Your task to perform on an android device: set an alarm Image 0: 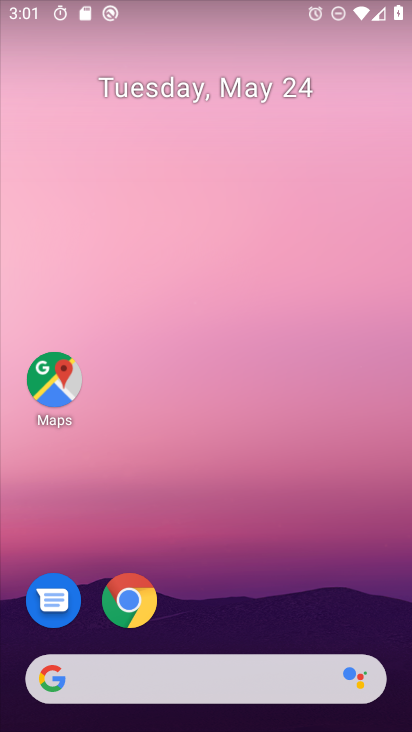
Step 0: drag from (219, 581) to (260, 130)
Your task to perform on an android device: set an alarm Image 1: 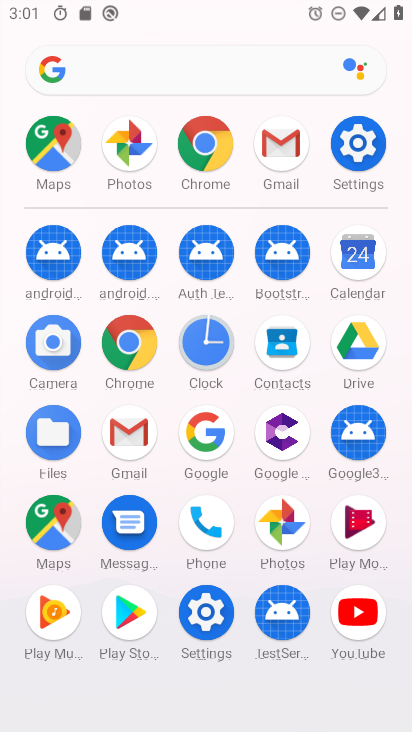
Step 1: click (198, 347)
Your task to perform on an android device: set an alarm Image 2: 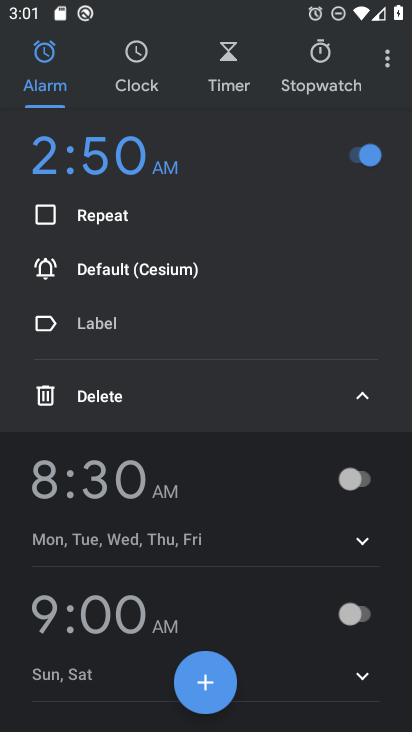
Step 2: click (209, 679)
Your task to perform on an android device: set an alarm Image 3: 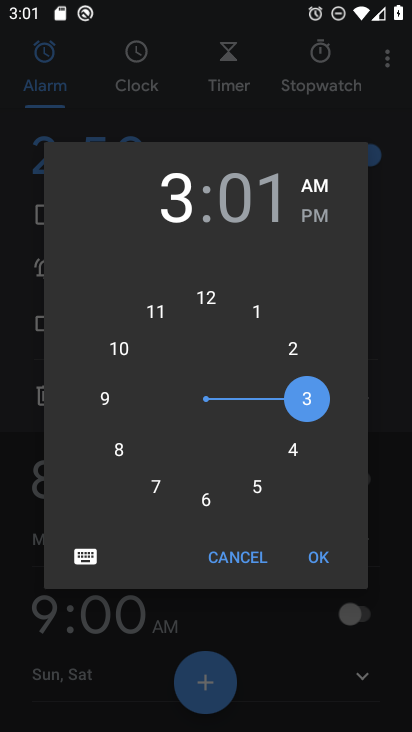
Step 3: click (309, 566)
Your task to perform on an android device: set an alarm Image 4: 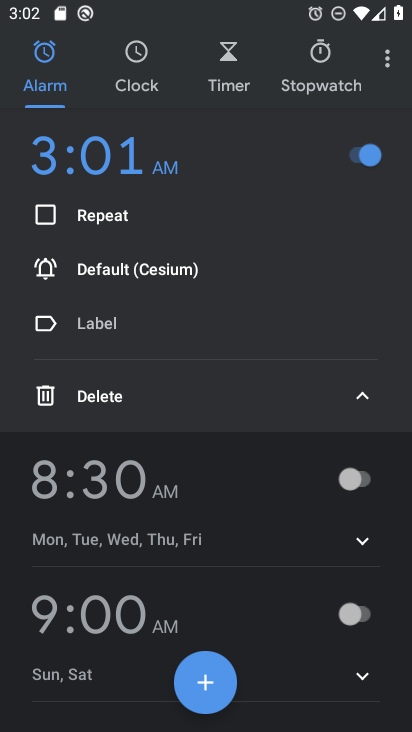
Step 4: task complete